Your task to perform on an android device: change notifications settings Image 0: 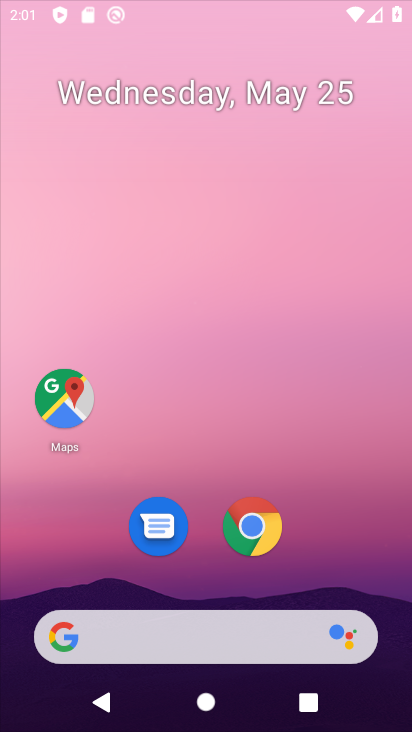
Step 0: click (340, 30)
Your task to perform on an android device: change notifications settings Image 1: 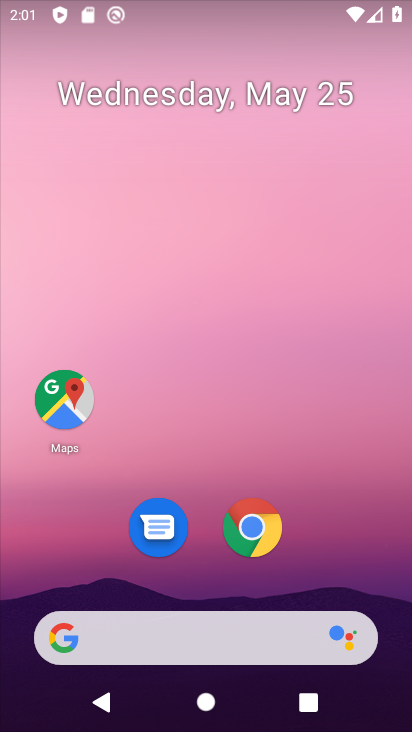
Step 1: drag from (201, 568) to (251, 124)
Your task to perform on an android device: change notifications settings Image 2: 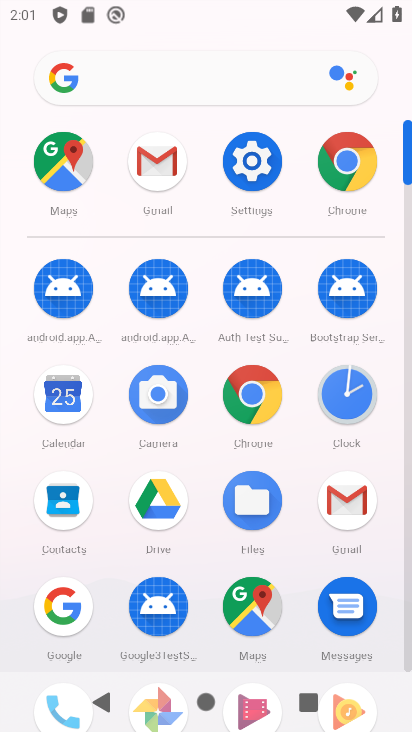
Step 2: click (262, 158)
Your task to perform on an android device: change notifications settings Image 3: 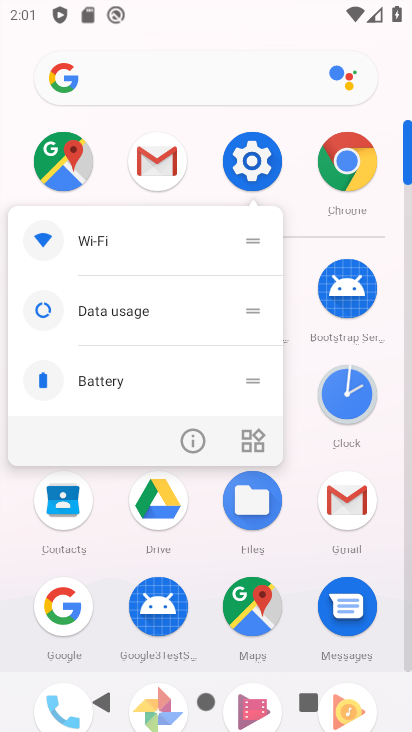
Step 3: click (194, 432)
Your task to perform on an android device: change notifications settings Image 4: 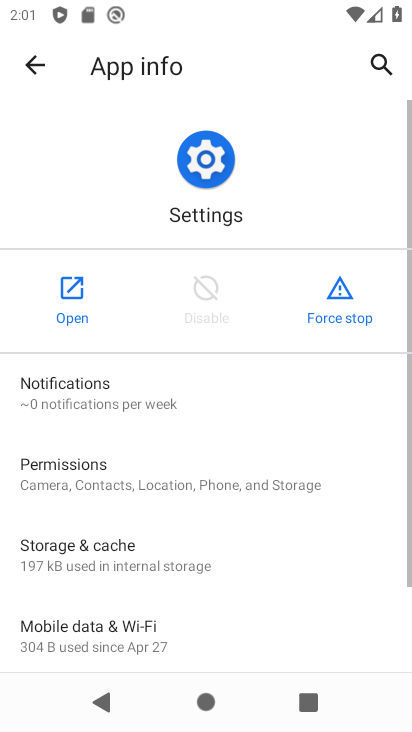
Step 4: click (73, 293)
Your task to perform on an android device: change notifications settings Image 5: 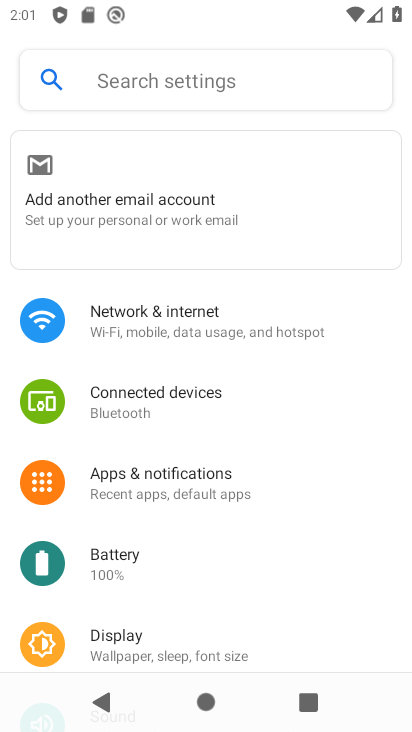
Step 5: click (211, 478)
Your task to perform on an android device: change notifications settings Image 6: 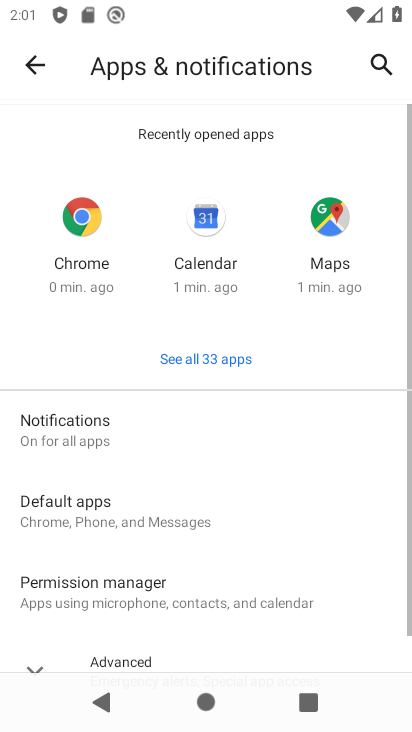
Step 6: drag from (209, 608) to (234, 285)
Your task to perform on an android device: change notifications settings Image 7: 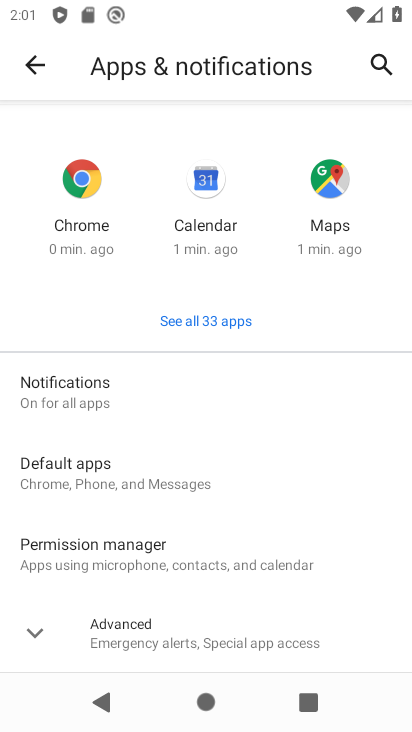
Step 7: click (146, 362)
Your task to perform on an android device: change notifications settings Image 8: 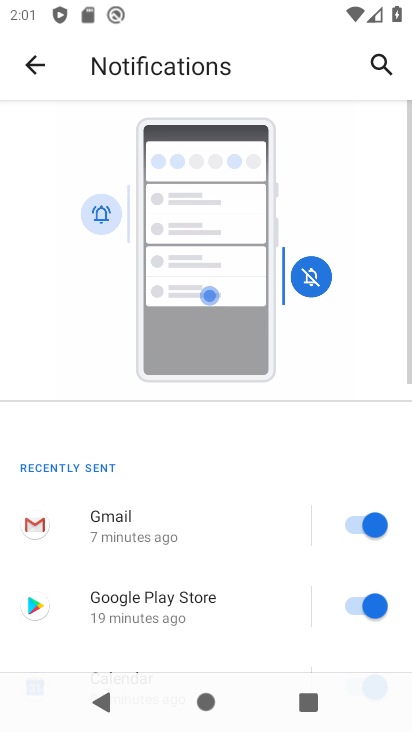
Step 8: drag from (226, 586) to (254, 222)
Your task to perform on an android device: change notifications settings Image 9: 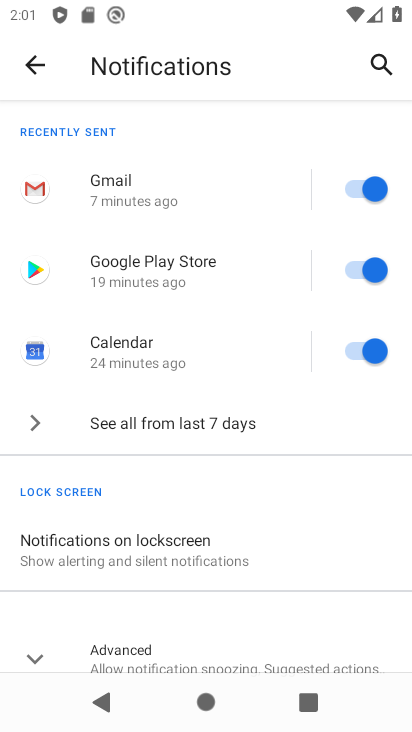
Step 9: drag from (259, 541) to (289, 251)
Your task to perform on an android device: change notifications settings Image 10: 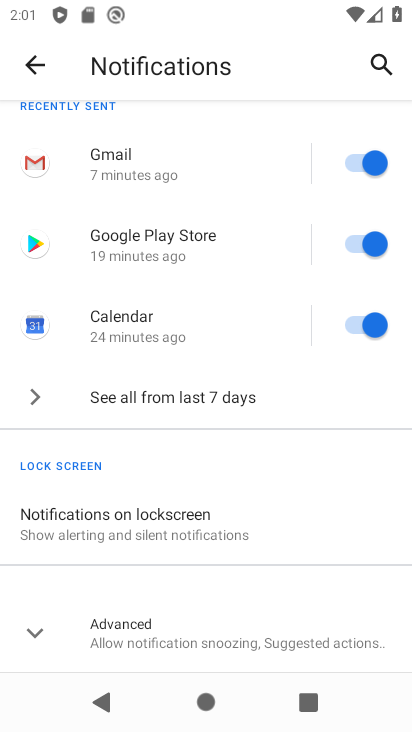
Step 10: drag from (173, 598) to (204, 310)
Your task to perform on an android device: change notifications settings Image 11: 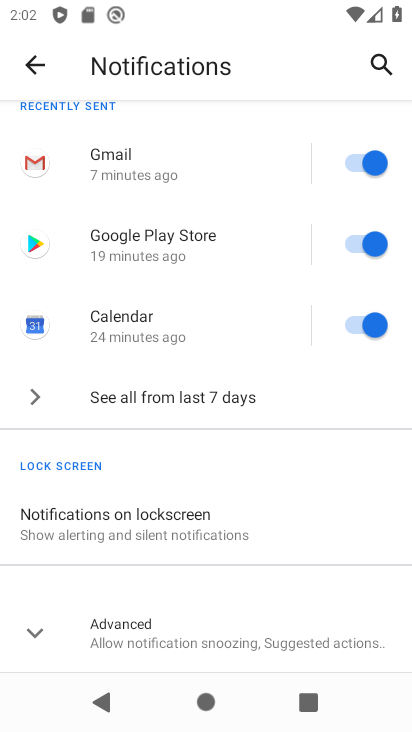
Step 11: drag from (242, 602) to (196, 17)
Your task to perform on an android device: change notifications settings Image 12: 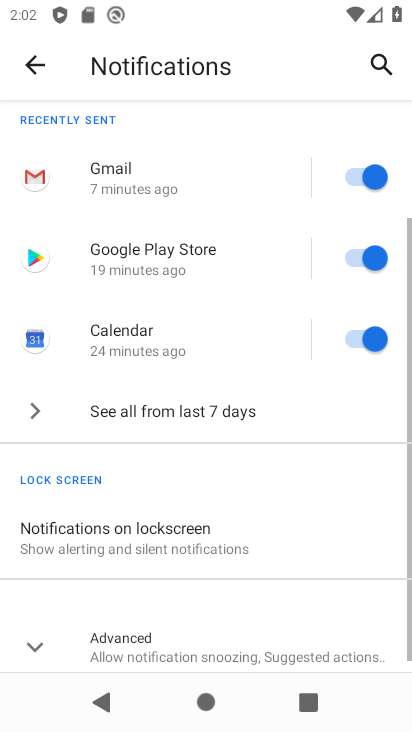
Step 12: drag from (242, 584) to (270, 254)
Your task to perform on an android device: change notifications settings Image 13: 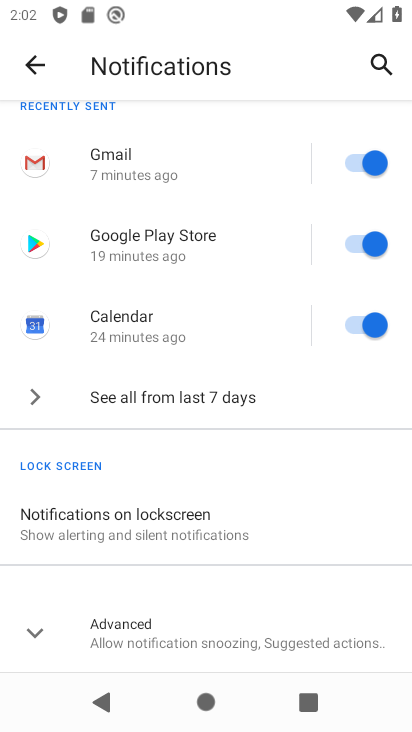
Step 13: drag from (205, 601) to (243, 142)
Your task to perform on an android device: change notifications settings Image 14: 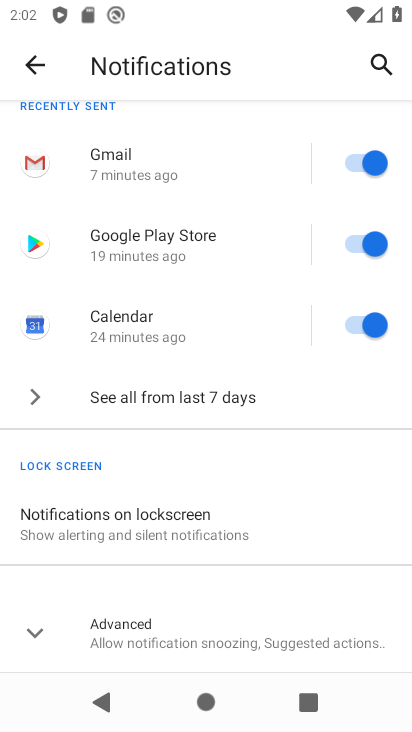
Step 14: drag from (195, 596) to (267, 194)
Your task to perform on an android device: change notifications settings Image 15: 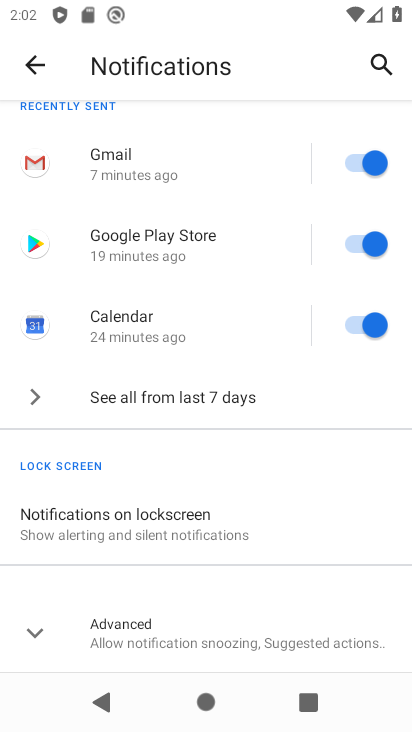
Step 15: drag from (230, 255) to (273, 607)
Your task to perform on an android device: change notifications settings Image 16: 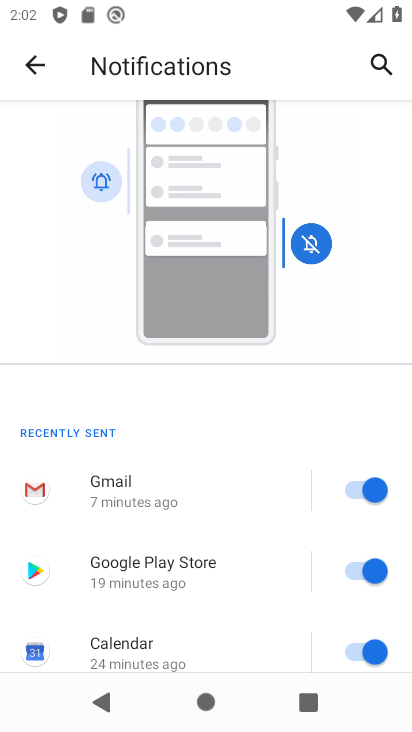
Step 16: drag from (241, 580) to (282, 107)
Your task to perform on an android device: change notifications settings Image 17: 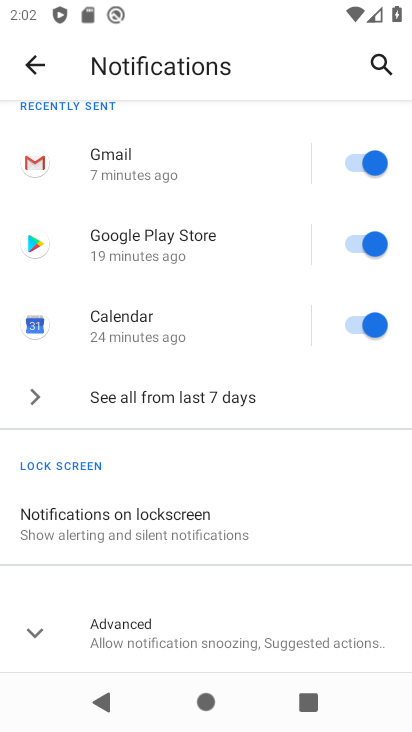
Step 17: click (151, 619)
Your task to perform on an android device: change notifications settings Image 18: 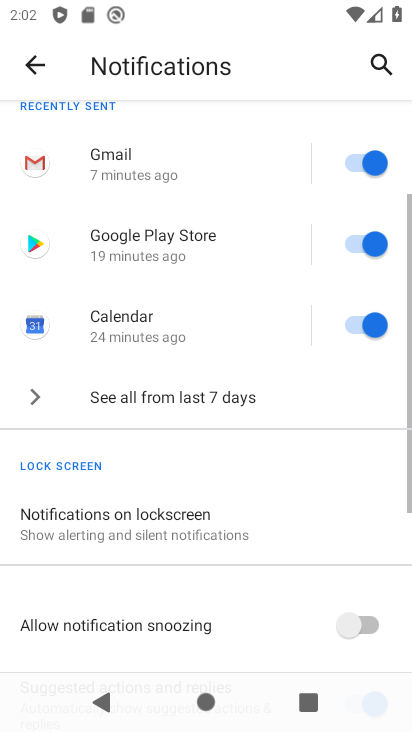
Step 18: drag from (209, 582) to (270, 240)
Your task to perform on an android device: change notifications settings Image 19: 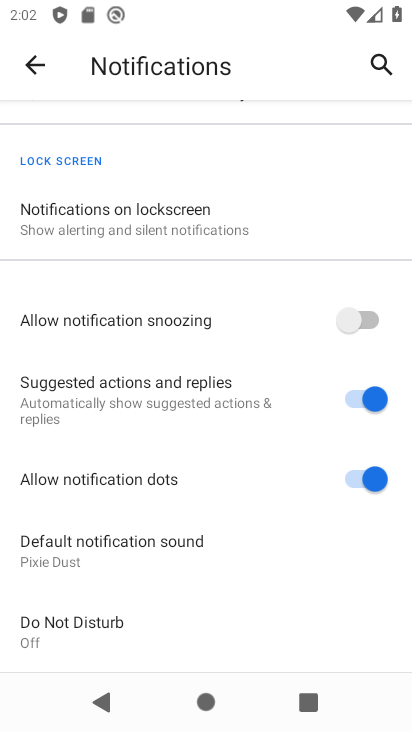
Step 19: drag from (208, 532) to (286, 195)
Your task to perform on an android device: change notifications settings Image 20: 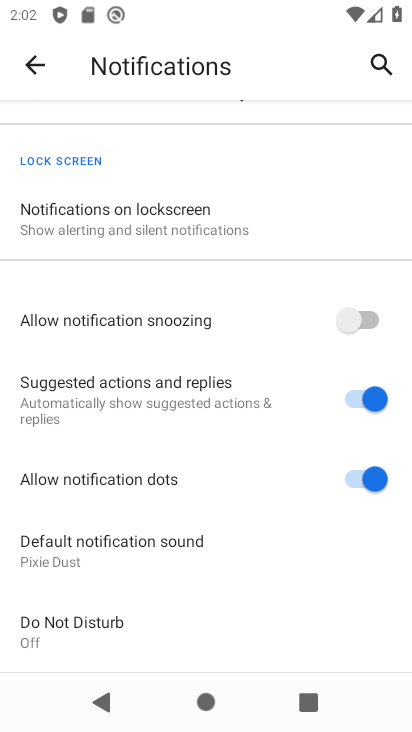
Step 20: drag from (178, 218) to (271, 594)
Your task to perform on an android device: change notifications settings Image 21: 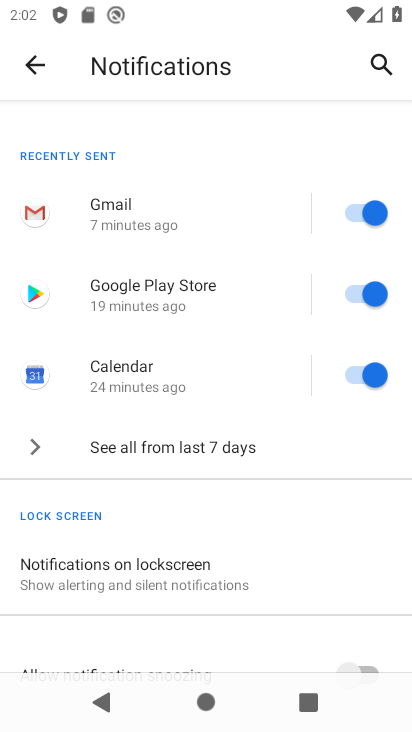
Step 21: drag from (195, 218) to (267, 652)
Your task to perform on an android device: change notifications settings Image 22: 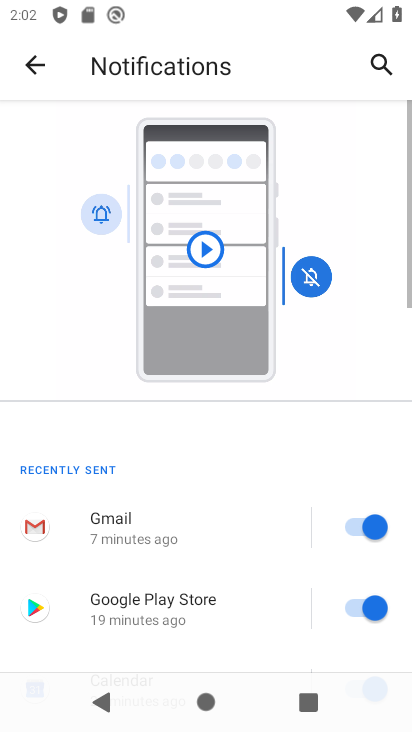
Step 22: drag from (215, 320) to (260, 650)
Your task to perform on an android device: change notifications settings Image 23: 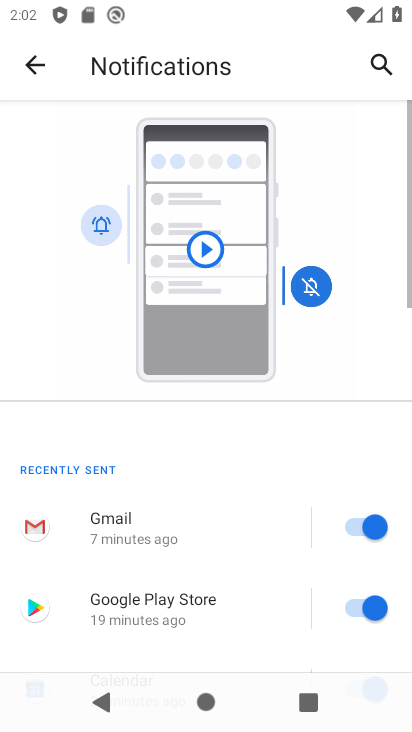
Step 23: drag from (224, 626) to (320, 211)
Your task to perform on an android device: change notifications settings Image 24: 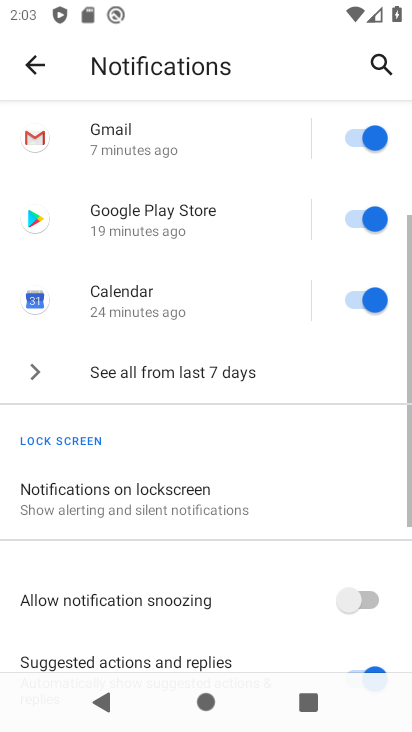
Step 24: drag from (196, 542) to (253, 205)
Your task to perform on an android device: change notifications settings Image 25: 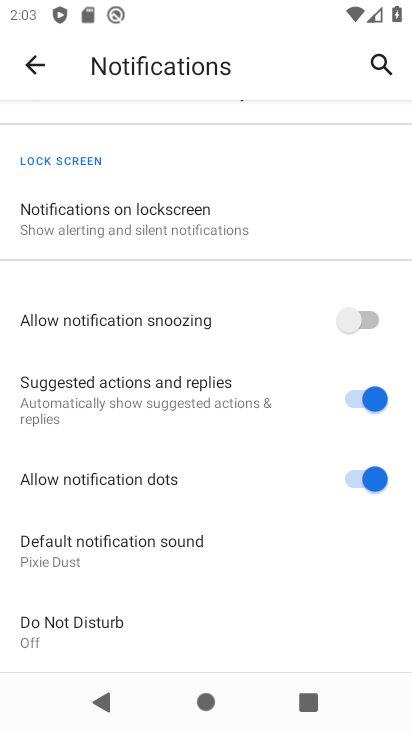
Step 25: drag from (234, 565) to (287, 332)
Your task to perform on an android device: change notifications settings Image 26: 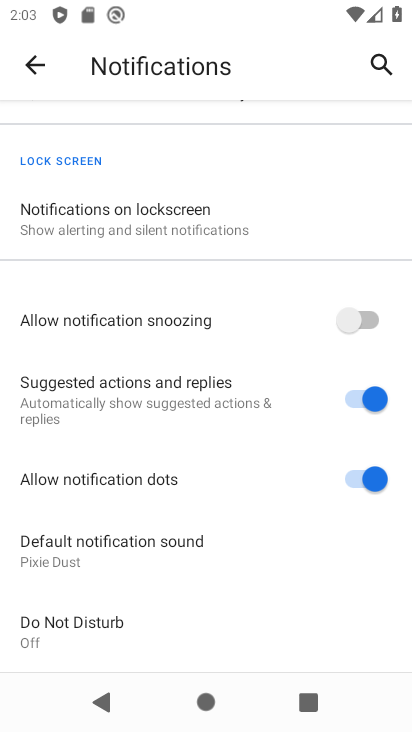
Step 26: drag from (217, 595) to (230, 360)
Your task to perform on an android device: change notifications settings Image 27: 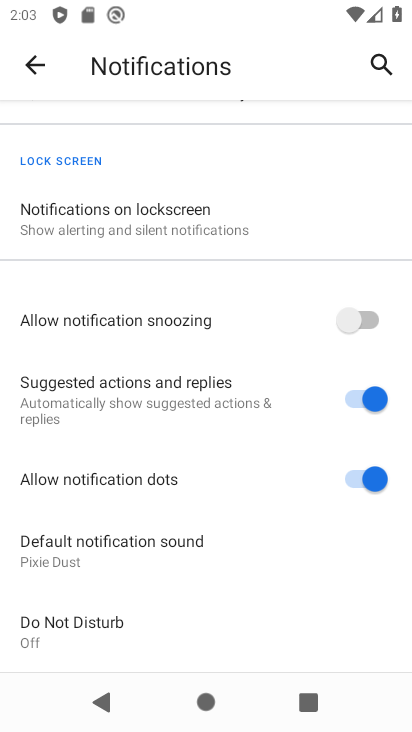
Step 27: drag from (206, 243) to (262, 631)
Your task to perform on an android device: change notifications settings Image 28: 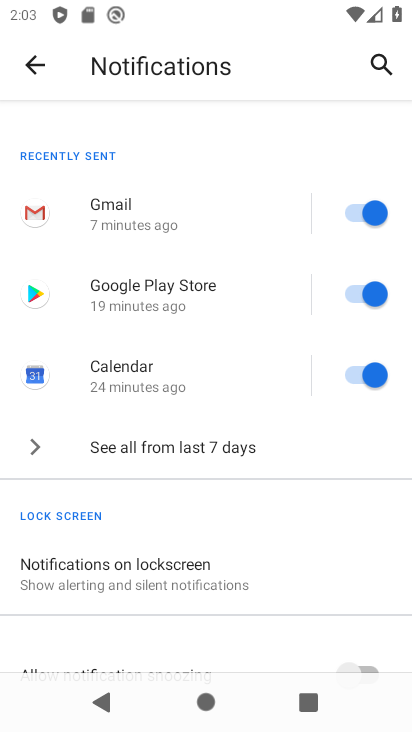
Step 28: drag from (250, 612) to (324, 262)
Your task to perform on an android device: change notifications settings Image 29: 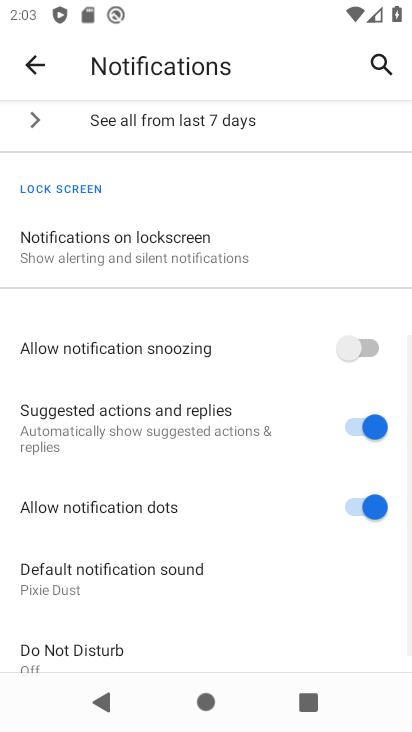
Step 29: drag from (322, 156) to (285, 606)
Your task to perform on an android device: change notifications settings Image 30: 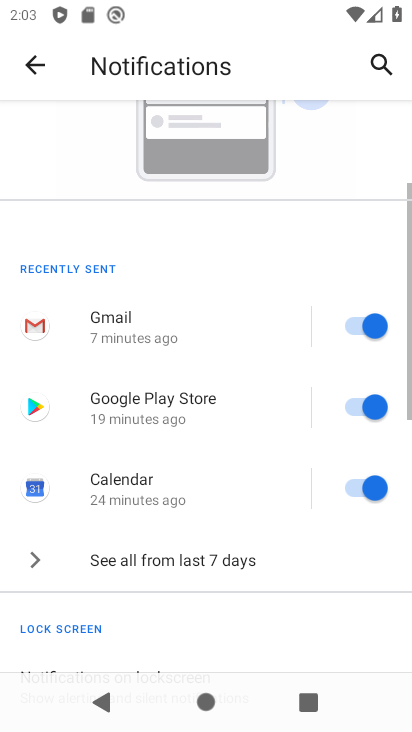
Step 30: drag from (227, 291) to (291, 681)
Your task to perform on an android device: change notifications settings Image 31: 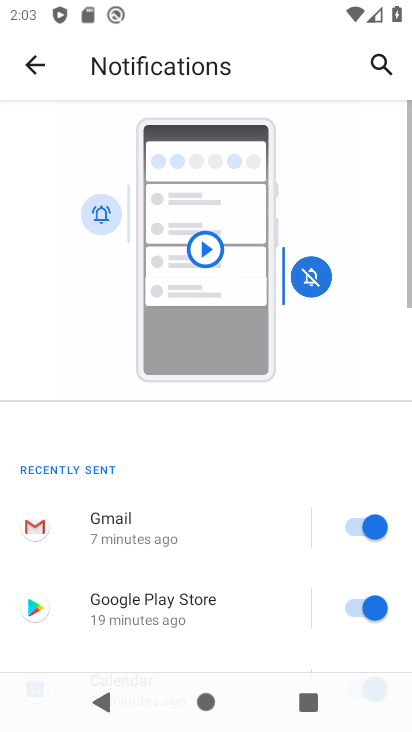
Step 31: drag from (237, 526) to (274, 239)
Your task to perform on an android device: change notifications settings Image 32: 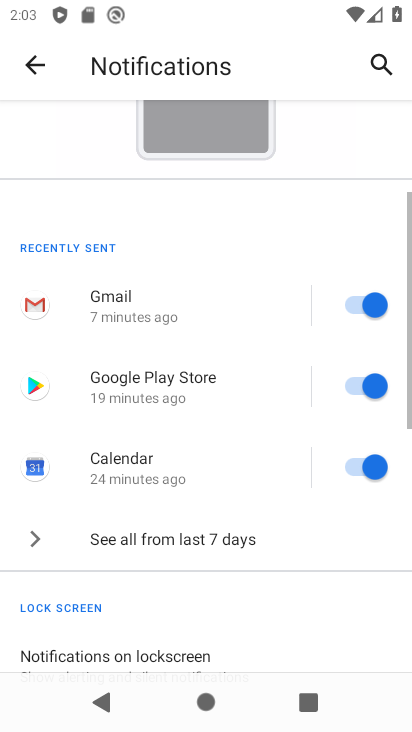
Step 32: drag from (275, 163) to (318, 730)
Your task to perform on an android device: change notifications settings Image 33: 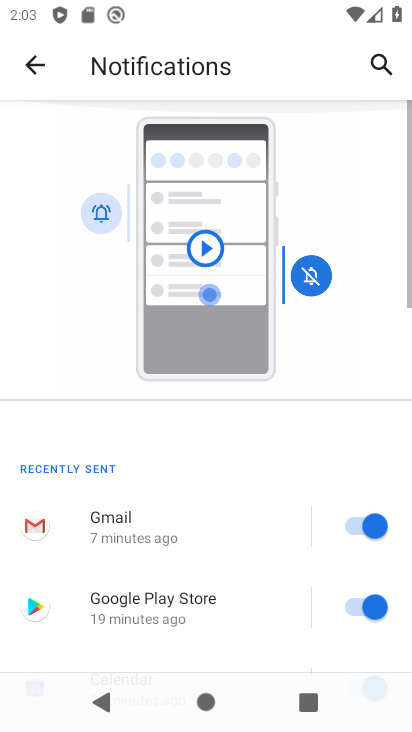
Step 33: drag from (252, 655) to (285, 437)
Your task to perform on an android device: change notifications settings Image 34: 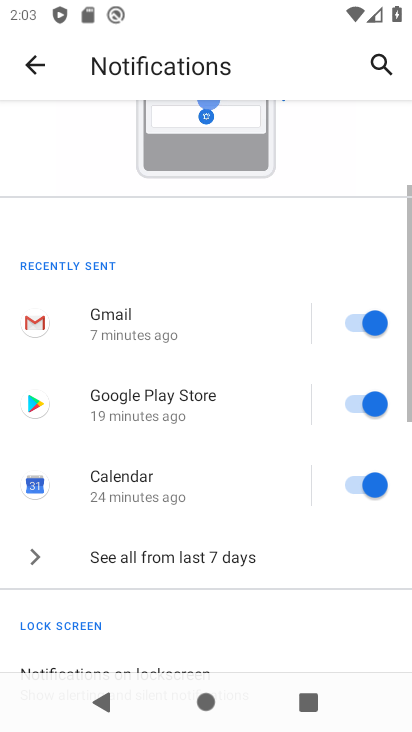
Step 34: drag from (234, 579) to (305, 271)
Your task to perform on an android device: change notifications settings Image 35: 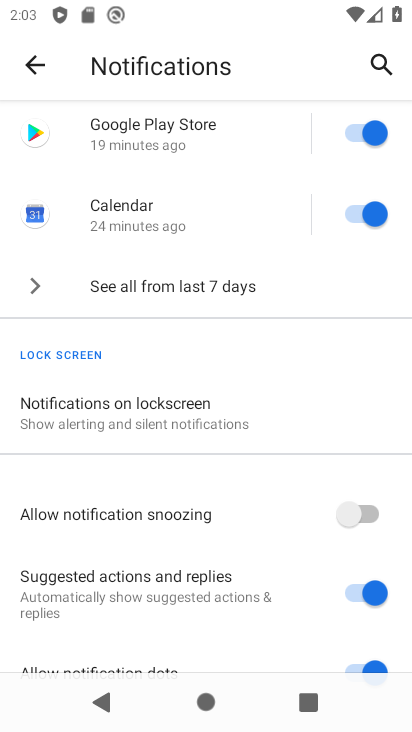
Step 35: drag from (226, 562) to (241, 332)
Your task to perform on an android device: change notifications settings Image 36: 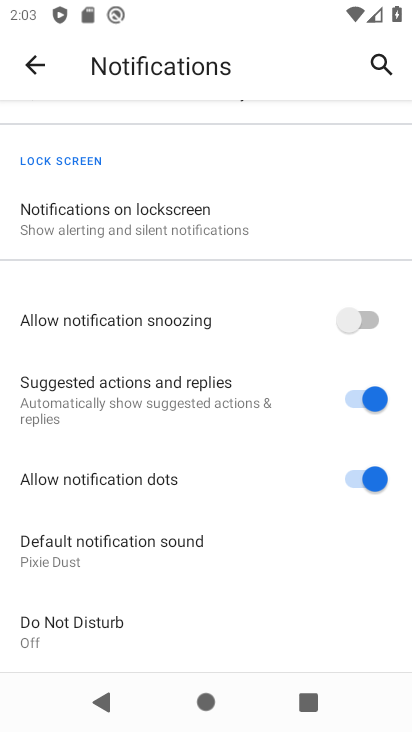
Step 36: click (364, 325)
Your task to perform on an android device: change notifications settings Image 37: 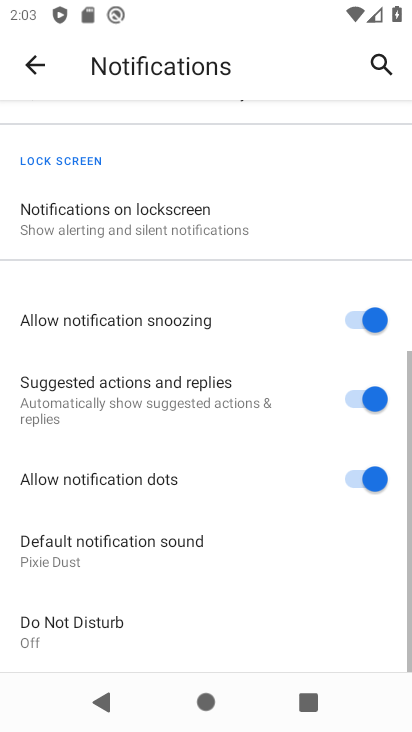
Step 37: task complete